Your task to perform on an android device: turn on sleep mode Image 0: 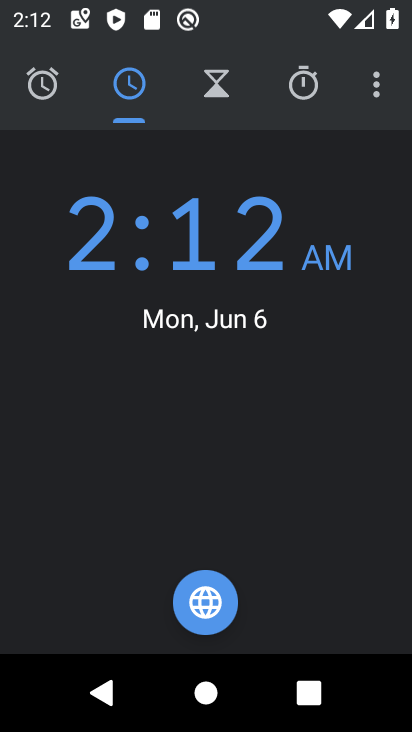
Step 0: press home button
Your task to perform on an android device: turn on sleep mode Image 1: 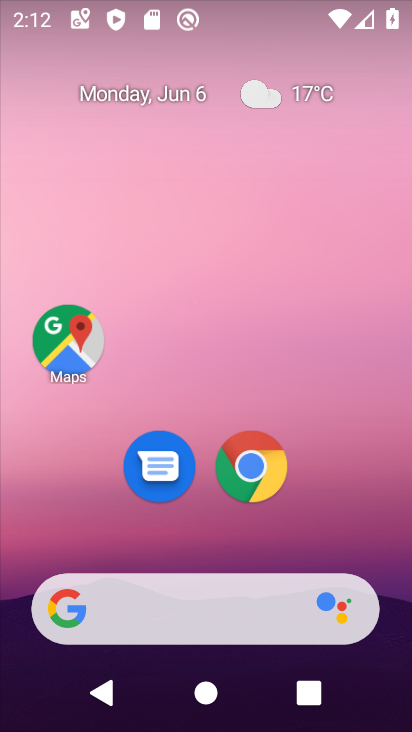
Step 1: drag from (212, 542) to (212, 167)
Your task to perform on an android device: turn on sleep mode Image 2: 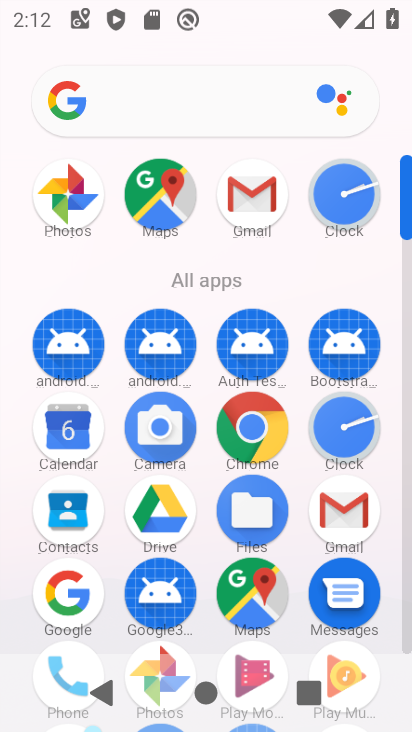
Step 2: drag from (213, 622) to (234, 110)
Your task to perform on an android device: turn on sleep mode Image 3: 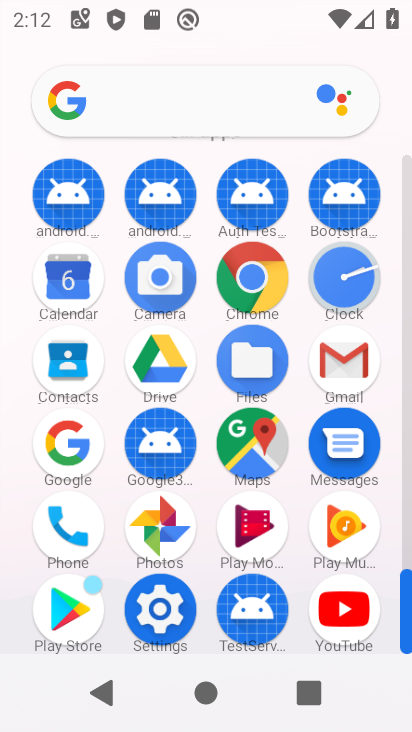
Step 3: click (165, 606)
Your task to perform on an android device: turn on sleep mode Image 4: 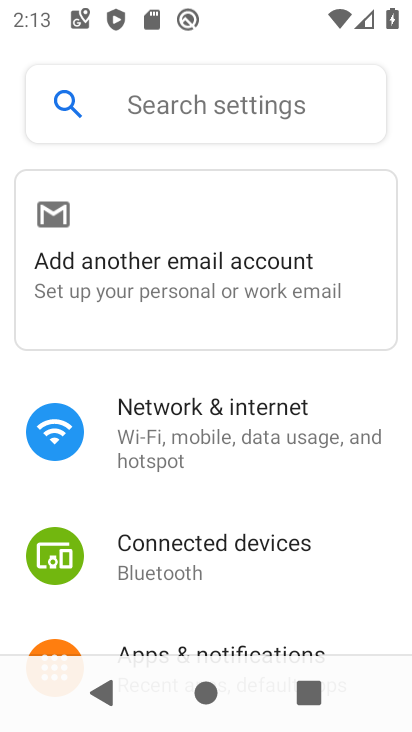
Step 4: task complete